Your task to perform on an android device: add a contact Image 0: 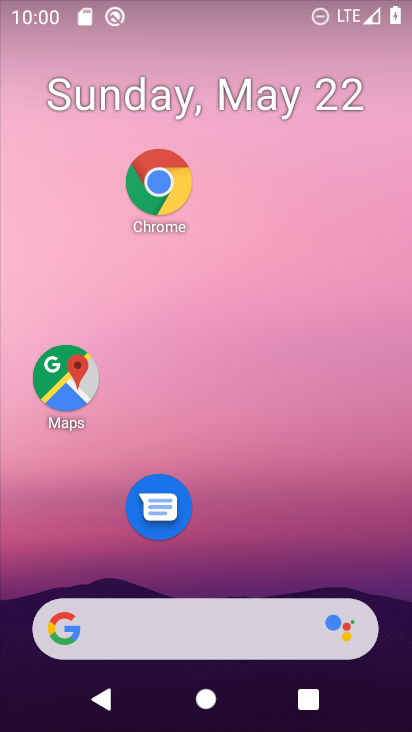
Step 0: drag from (248, 601) to (229, 23)
Your task to perform on an android device: add a contact Image 1: 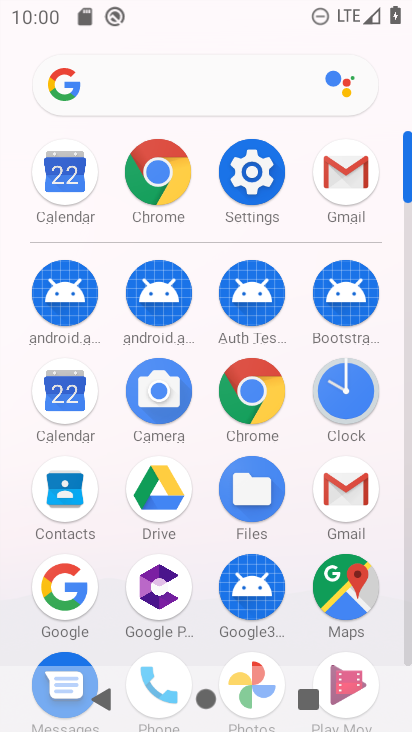
Step 1: click (79, 494)
Your task to perform on an android device: add a contact Image 2: 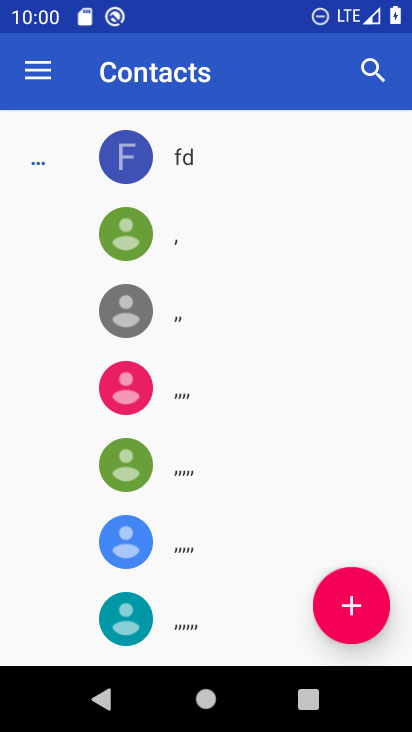
Step 2: click (350, 586)
Your task to perform on an android device: add a contact Image 3: 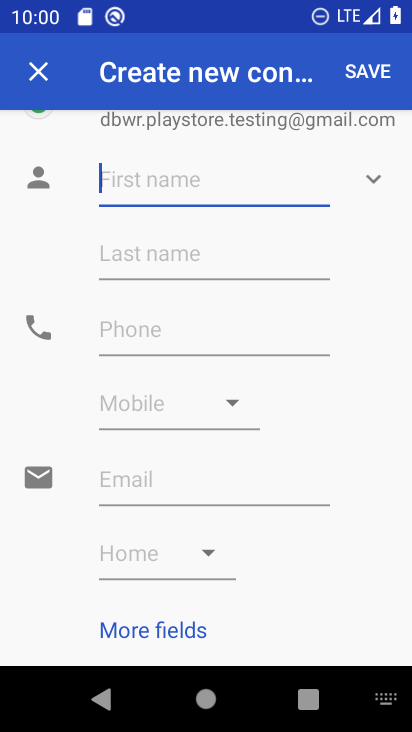
Step 3: type "jhgj"
Your task to perform on an android device: add a contact Image 4: 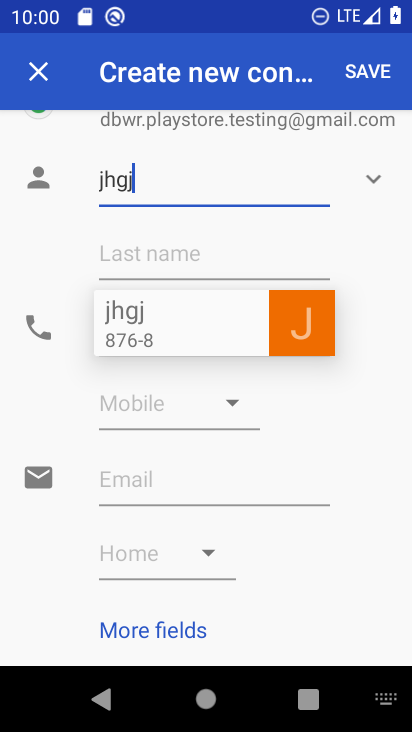
Step 4: click (173, 331)
Your task to perform on an android device: add a contact Image 5: 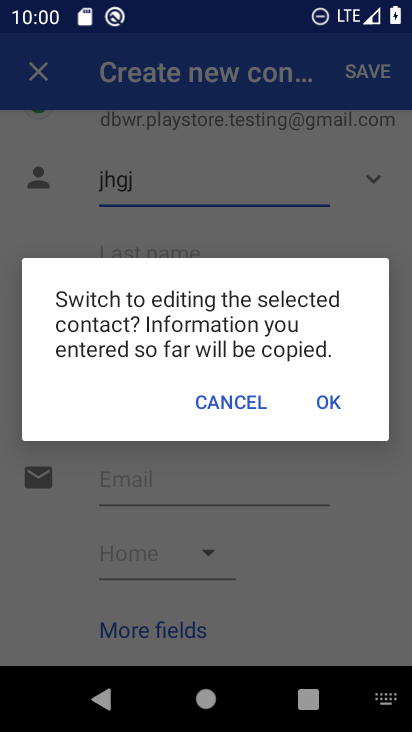
Step 5: click (248, 407)
Your task to perform on an android device: add a contact Image 6: 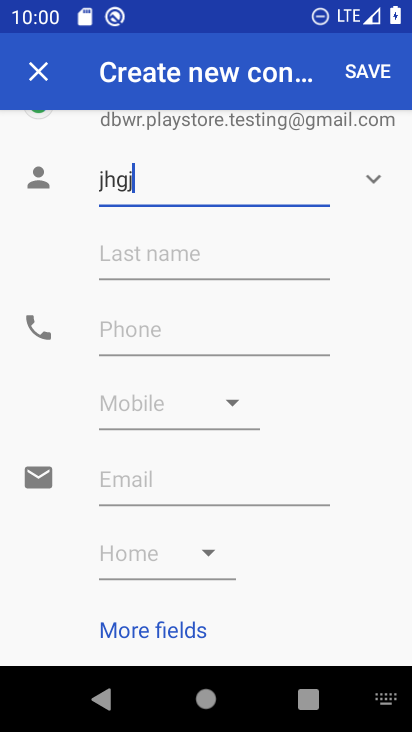
Step 6: click (229, 193)
Your task to perform on an android device: add a contact Image 7: 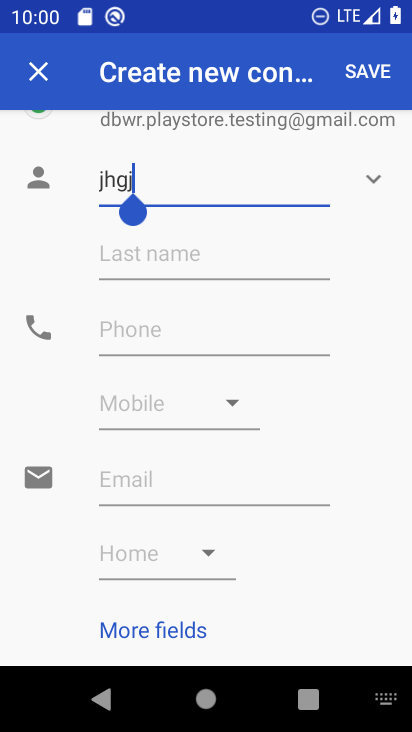
Step 7: type "nj"
Your task to perform on an android device: add a contact Image 8: 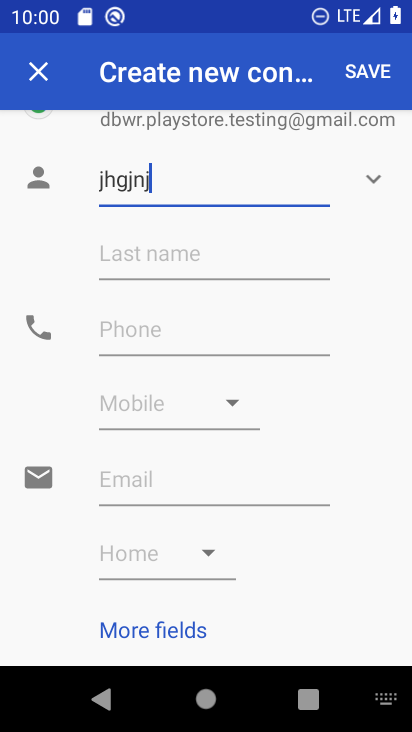
Step 8: click (146, 323)
Your task to perform on an android device: add a contact Image 9: 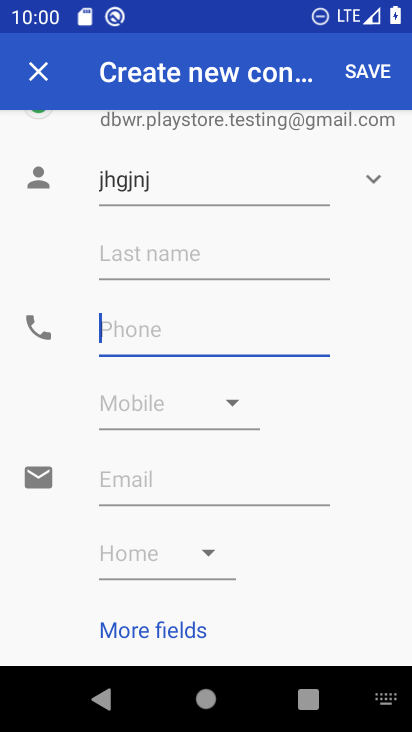
Step 9: type "78598"
Your task to perform on an android device: add a contact Image 10: 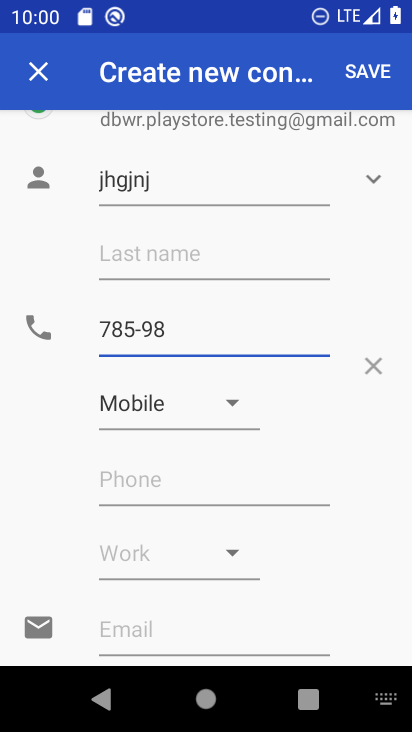
Step 10: click (369, 61)
Your task to perform on an android device: add a contact Image 11: 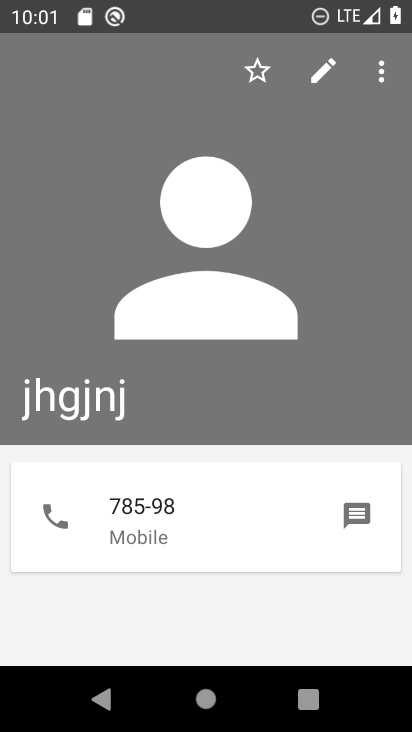
Step 11: task complete